Your task to perform on an android device: Turn on the flashlight Image 0: 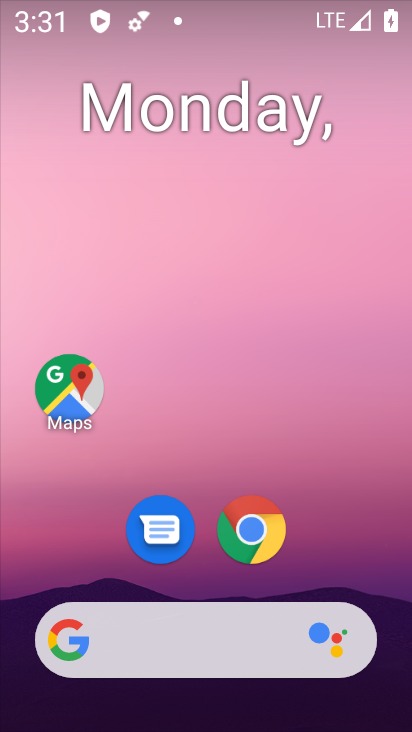
Step 0: drag from (196, 650) to (169, 133)
Your task to perform on an android device: Turn on the flashlight Image 1: 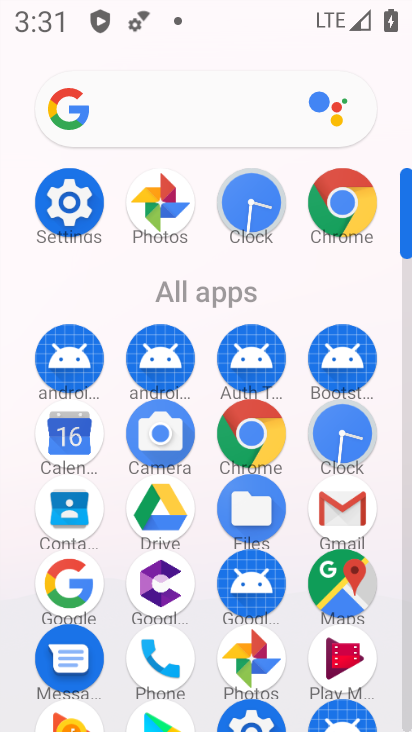
Step 1: click (235, 429)
Your task to perform on an android device: Turn on the flashlight Image 2: 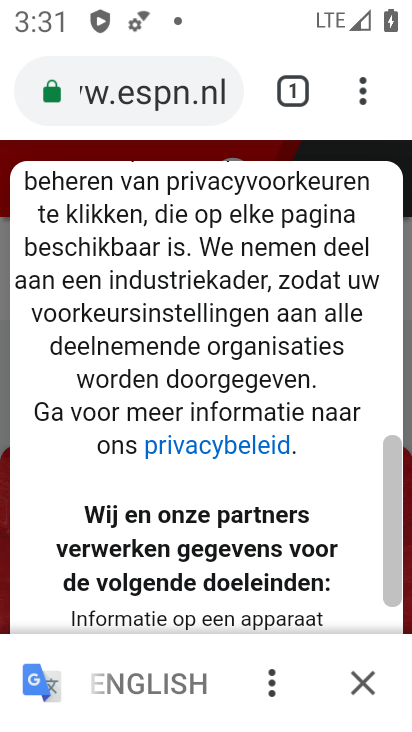
Step 2: drag from (222, 33) to (298, 421)
Your task to perform on an android device: Turn on the flashlight Image 3: 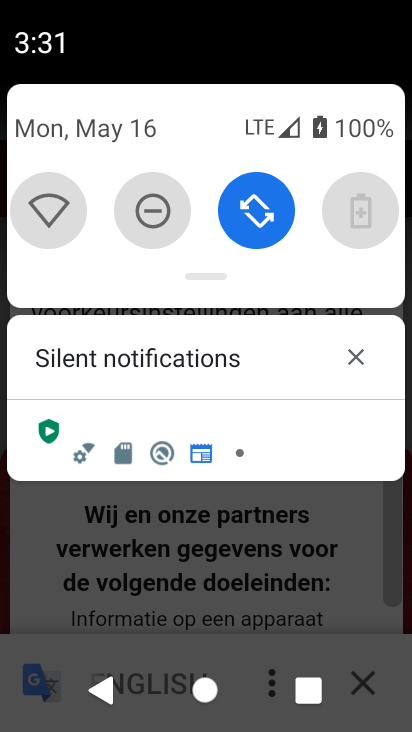
Step 3: click (255, 273)
Your task to perform on an android device: Turn on the flashlight Image 4: 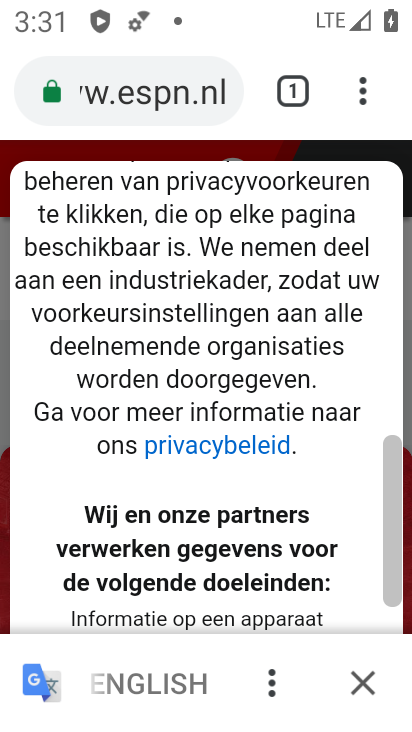
Step 4: task complete